Your task to perform on an android device: delete location history Image 0: 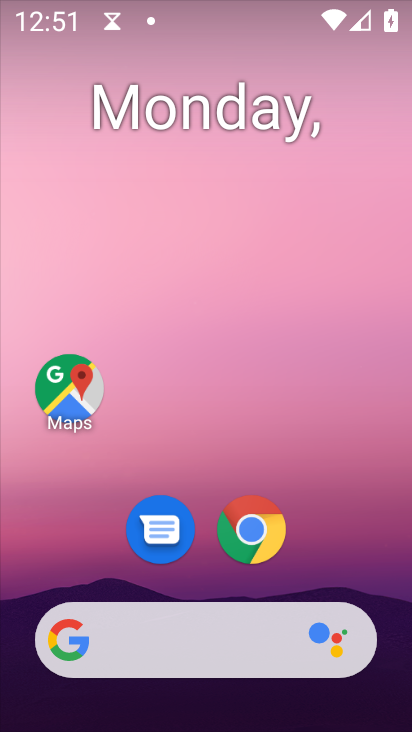
Step 0: drag from (329, 537) to (309, 116)
Your task to perform on an android device: delete location history Image 1: 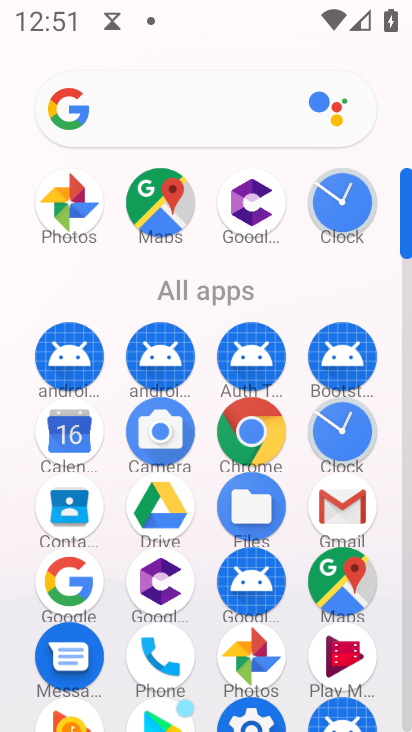
Step 1: drag from (273, 259) to (265, 39)
Your task to perform on an android device: delete location history Image 2: 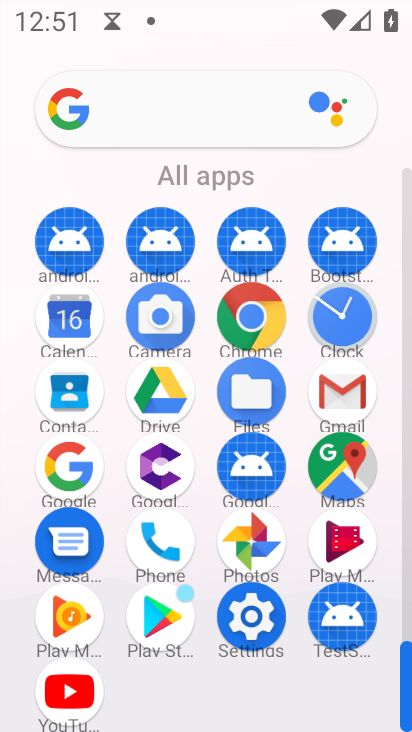
Step 2: click (244, 672)
Your task to perform on an android device: delete location history Image 3: 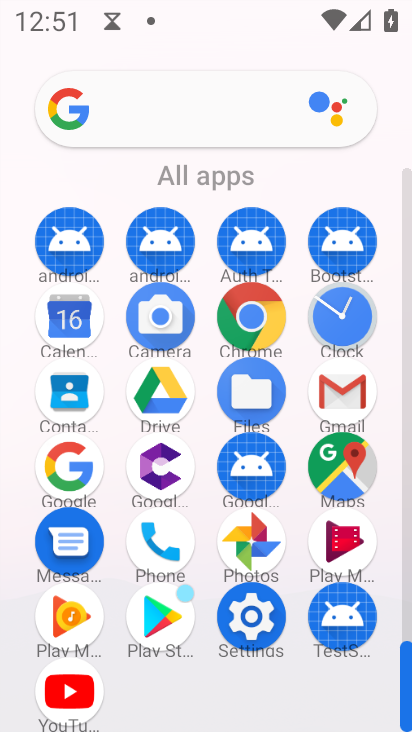
Step 3: click (252, 617)
Your task to perform on an android device: delete location history Image 4: 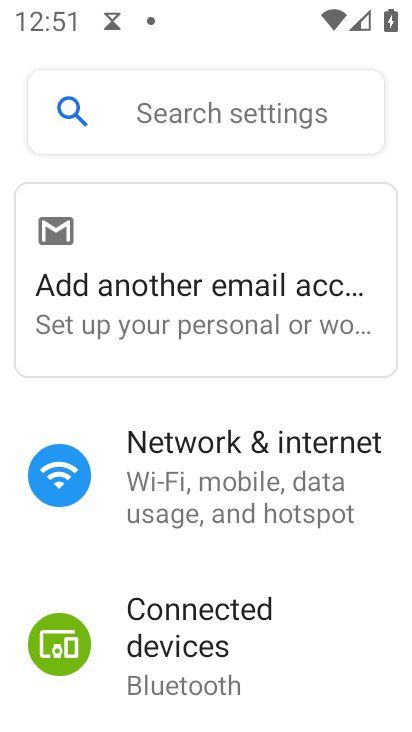
Step 4: drag from (315, 670) to (305, 197)
Your task to perform on an android device: delete location history Image 5: 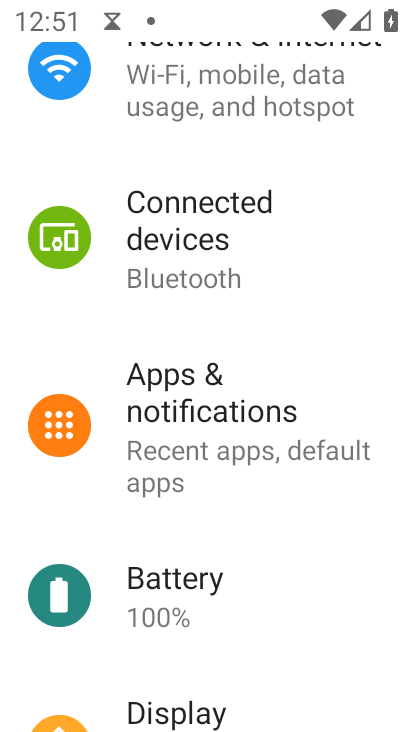
Step 5: drag from (293, 632) to (280, 178)
Your task to perform on an android device: delete location history Image 6: 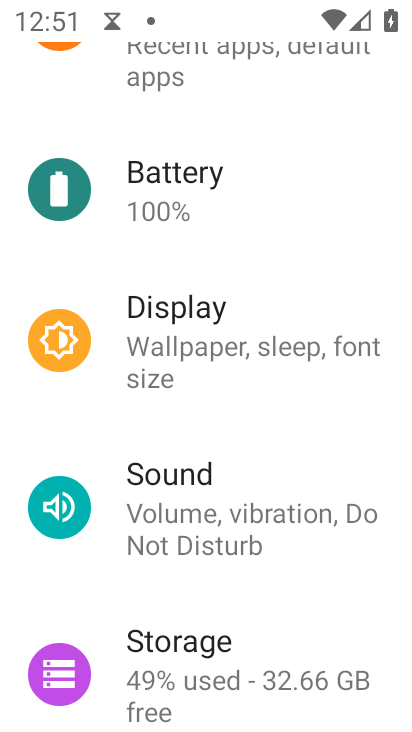
Step 6: drag from (291, 610) to (268, 99)
Your task to perform on an android device: delete location history Image 7: 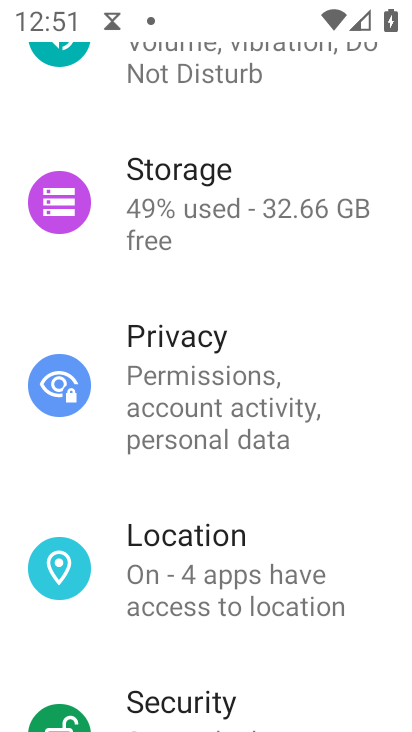
Step 7: click (171, 557)
Your task to perform on an android device: delete location history Image 8: 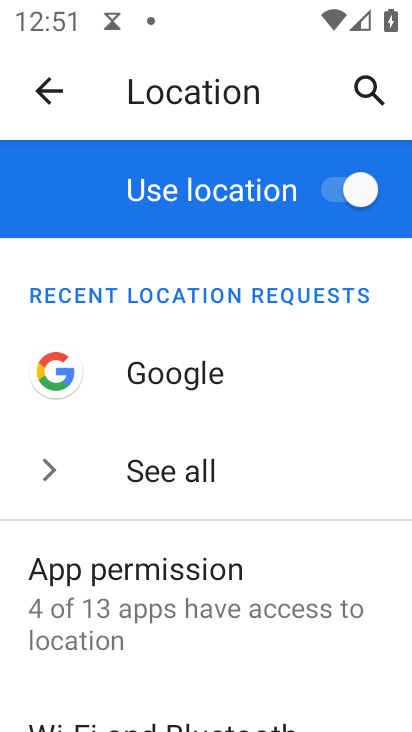
Step 8: task complete